Your task to perform on an android device: turn off priority inbox in the gmail app Image 0: 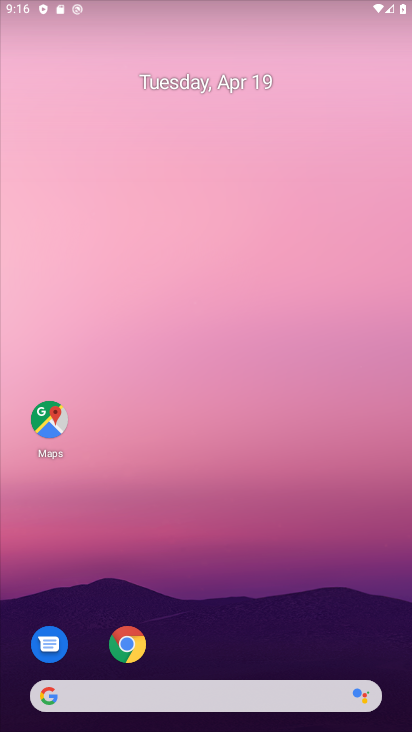
Step 0: drag from (233, 574) to (336, 44)
Your task to perform on an android device: turn off priority inbox in the gmail app Image 1: 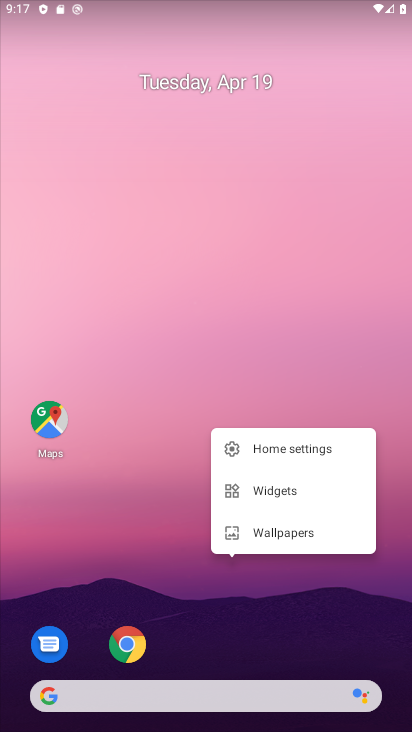
Step 1: click (233, 226)
Your task to perform on an android device: turn off priority inbox in the gmail app Image 2: 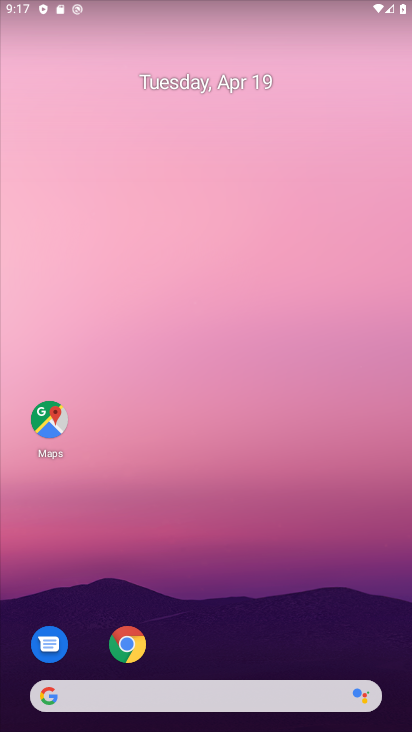
Step 2: drag from (205, 630) to (168, 53)
Your task to perform on an android device: turn off priority inbox in the gmail app Image 3: 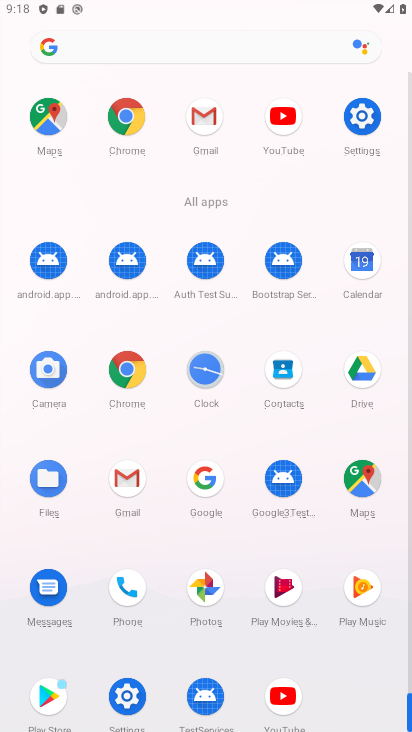
Step 3: click (202, 119)
Your task to perform on an android device: turn off priority inbox in the gmail app Image 4: 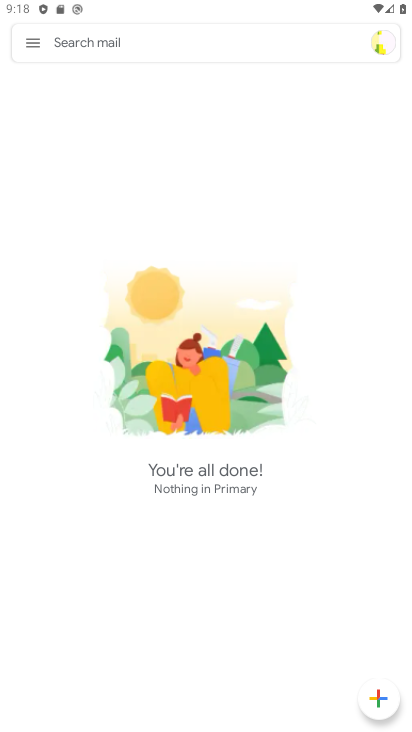
Step 4: click (28, 42)
Your task to perform on an android device: turn off priority inbox in the gmail app Image 5: 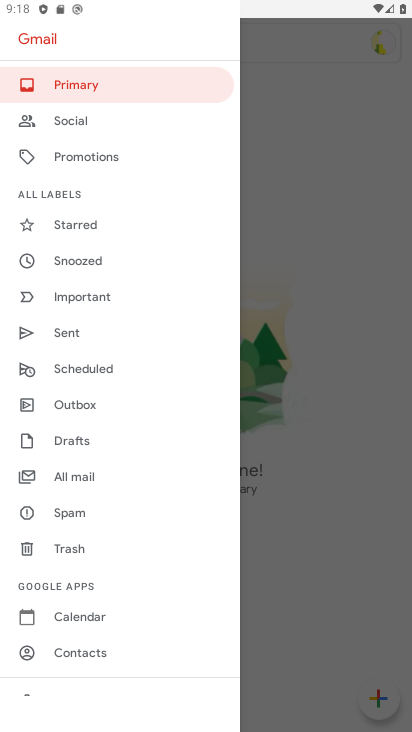
Step 5: task complete